Your task to perform on an android device: Search for Mexican restaurants on Maps Image 0: 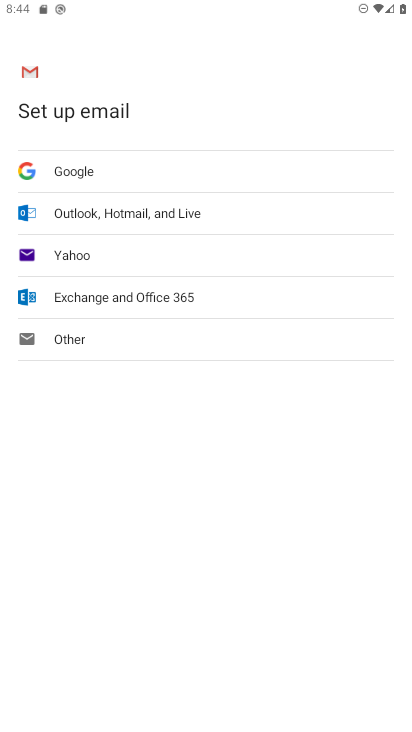
Step 0: press home button
Your task to perform on an android device: Search for Mexican restaurants on Maps Image 1: 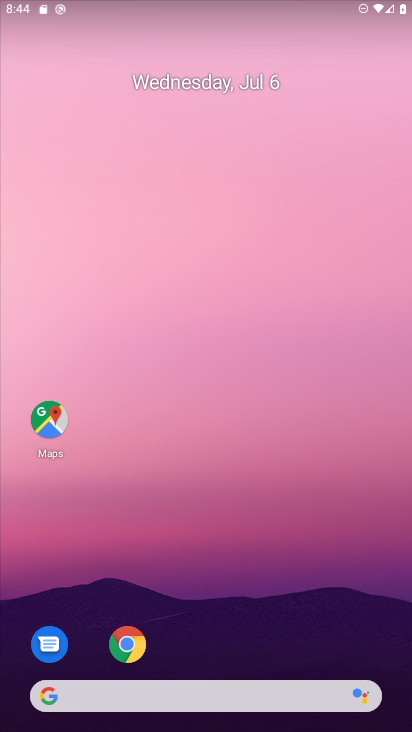
Step 1: click (40, 422)
Your task to perform on an android device: Search for Mexican restaurants on Maps Image 2: 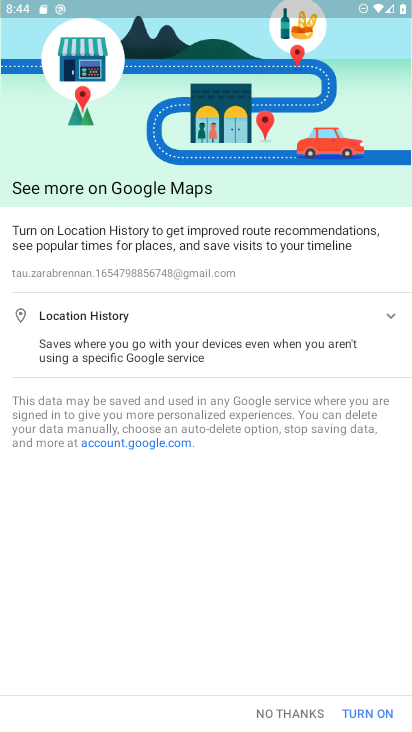
Step 2: click (347, 716)
Your task to perform on an android device: Search for Mexican restaurants on Maps Image 3: 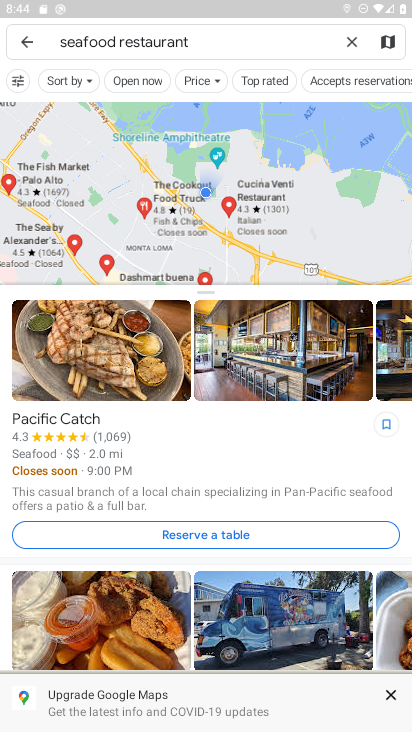
Step 3: click (348, 37)
Your task to perform on an android device: Search for Mexican restaurants on Maps Image 4: 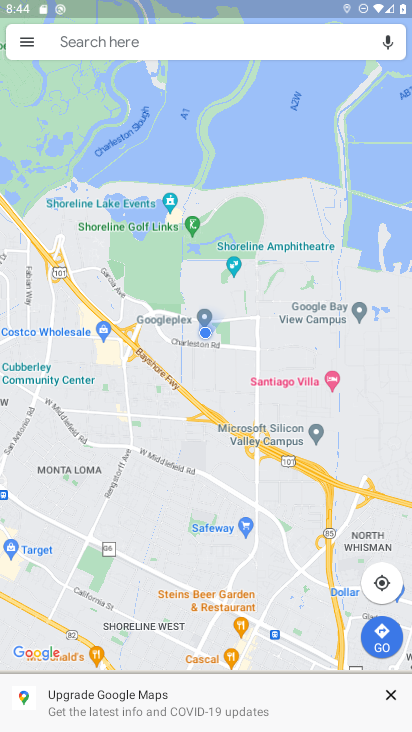
Step 4: click (139, 55)
Your task to perform on an android device: Search for Mexican restaurants on Maps Image 5: 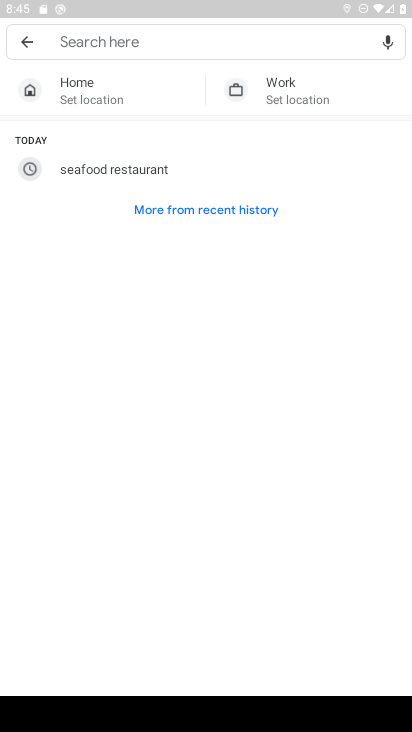
Step 5: type "Mexican restaurants"
Your task to perform on an android device: Search for Mexican restaurants on Maps Image 6: 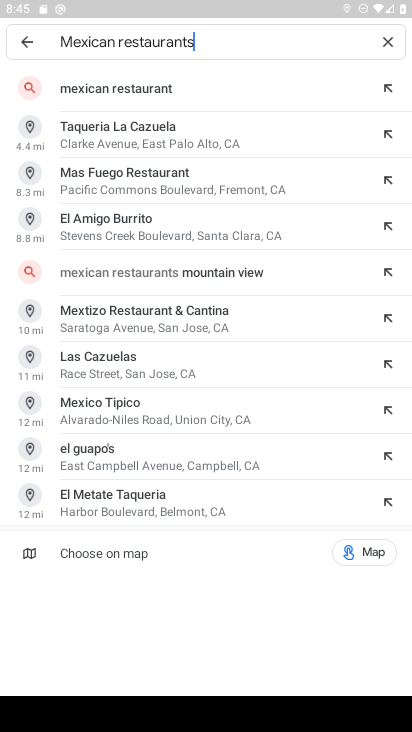
Step 6: click (68, 94)
Your task to perform on an android device: Search for Mexican restaurants on Maps Image 7: 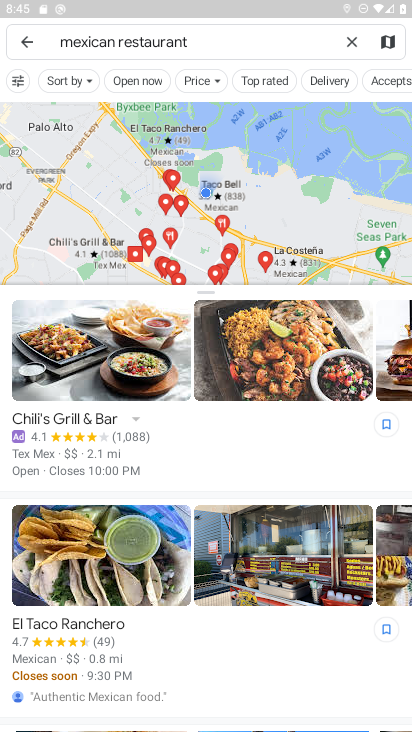
Step 7: task complete